Your task to perform on an android device: remove spam from my inbox in the gmail app Image 0: 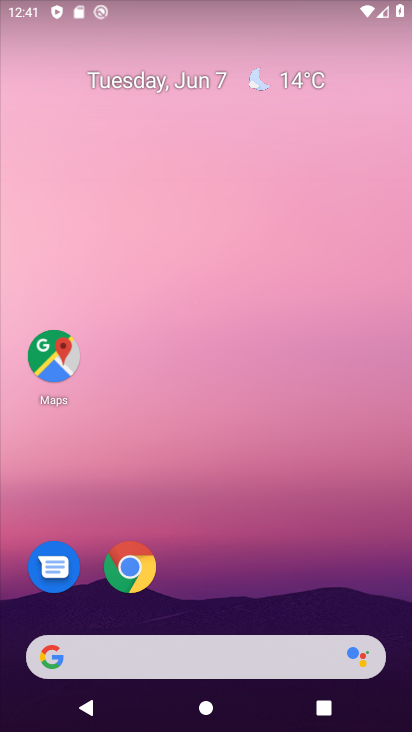
Step 0: drag from (257, 592) to (347, 19)
Your task to perform on an android device: remove spam from my inbox in the gmail app Image 1: 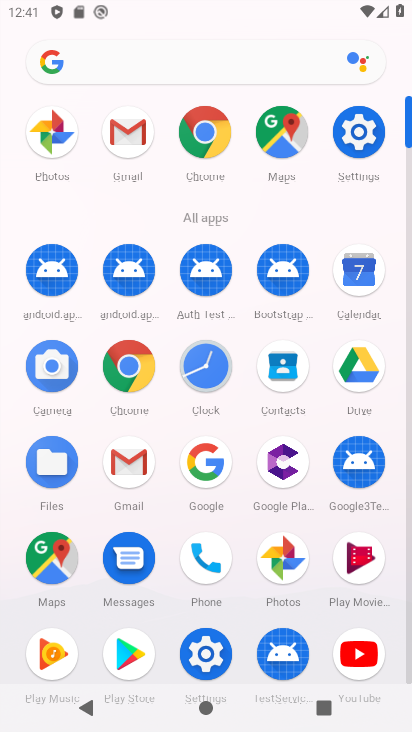
Step 1: click (123, 473)
Your task to perform on an android device: remove spam from my inbox in the gmail app Image 2: 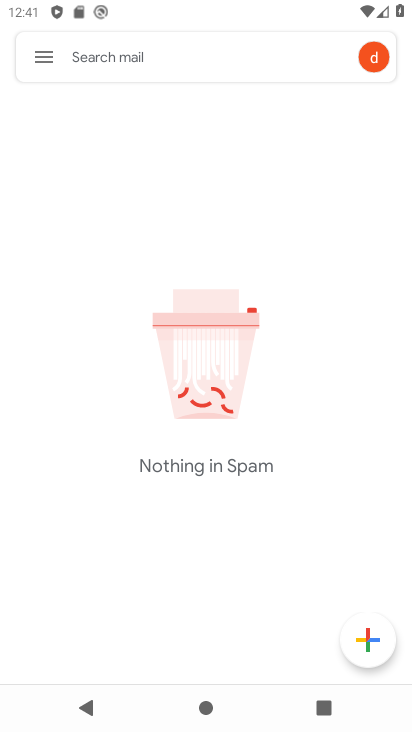
Step 2: click (30, 62)
Your task to perform on an android device: remove spam from my inbox in the gmail app Image 3: 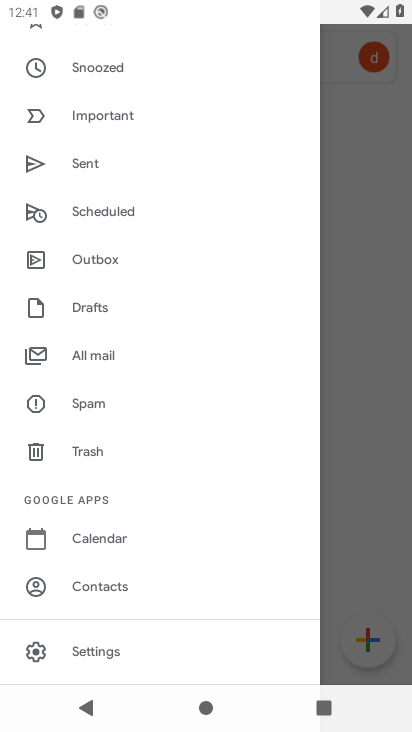
Step 3: click (96, 405)
Your task to perform on an android device: remove spam from my inbox in the gmail app Image 4: 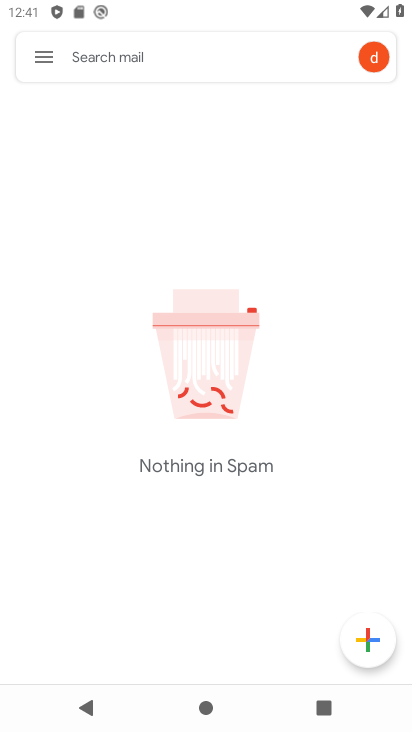
Step 4: task complete